Your task to perform on an android device: Open Youtube and go to the subscriptions tab Image 0: 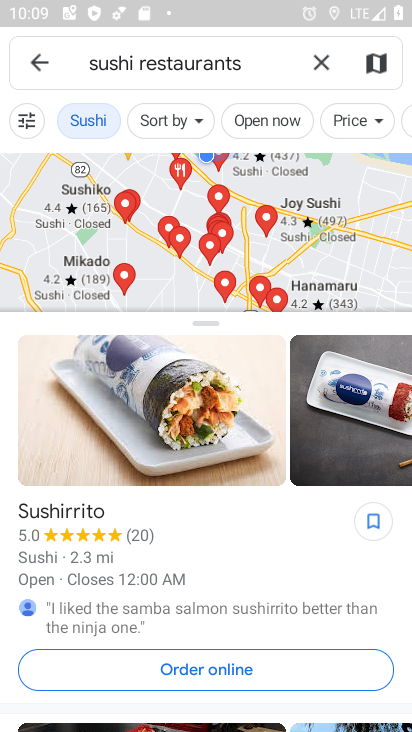
Step 0: press home button
Your task to perform on an android device: Open Youtube and go to the subscriptions tab Image 1: 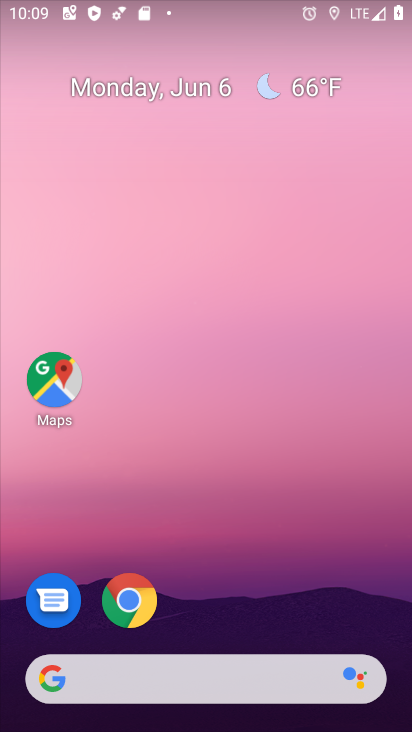
Step 1: drag from (168, 489) to (375, 60)
Your task to perform on an android device: Open Youtube and go to the subscriptions tab Image 2: 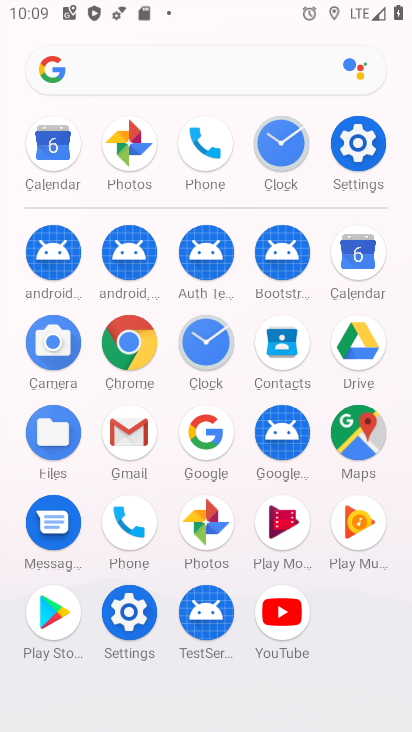
Step 2: click (264, 628)
Your task to perform on an android device: Open Youtube and go to the subscriptions tab Image 3: 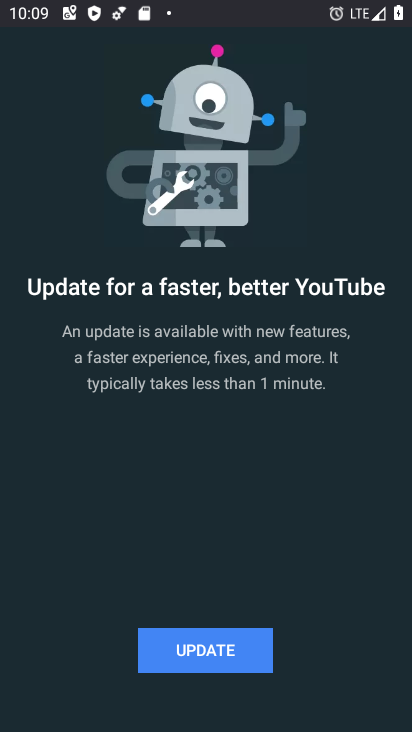
Step 3: task complete